Your task to perform on an android device: Open Google Chrome Image 0: 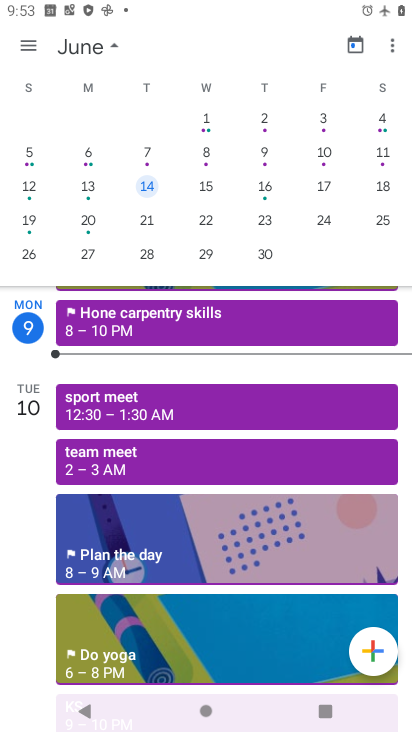
Step 0: press home button
Your task to perform on an android device: Open Google Chrome Image 1: 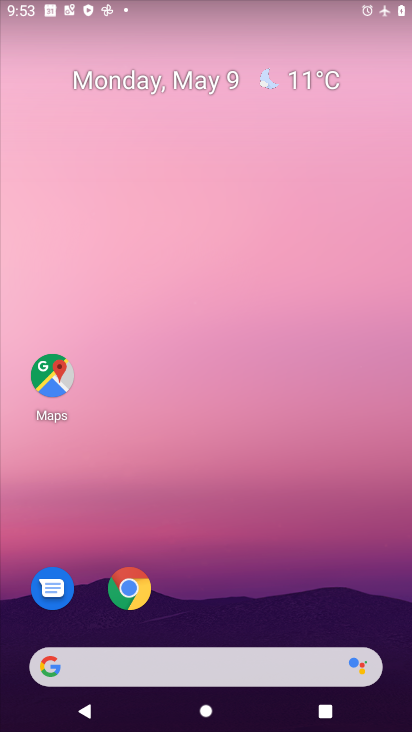
Step 1: drag from (342, 595) to (290, 15)
Your task to perform on an android device: Open Google Chrome Image 2: 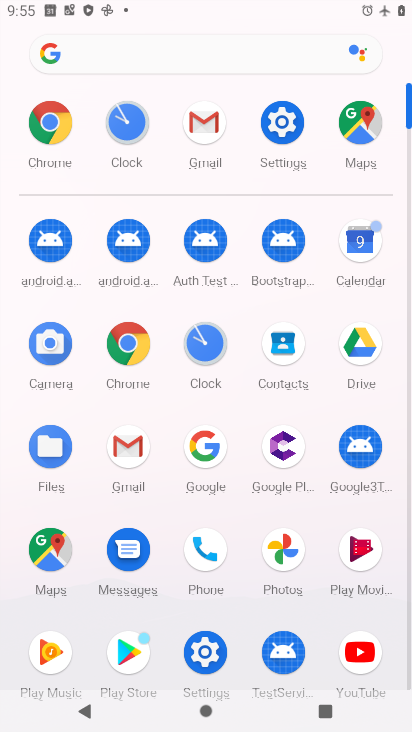
Step 2: click (137, 348)
Your task to perform on an android device: Open Google Chrome Image 3: 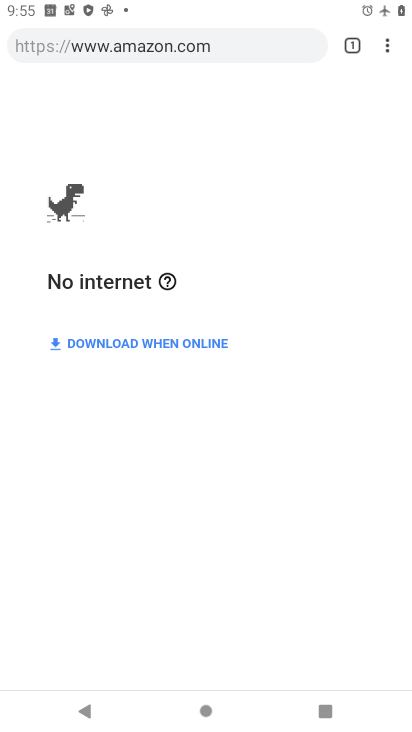
Step 3: task complete